Your task to perform on an android device: turn notification dots off Image 0: 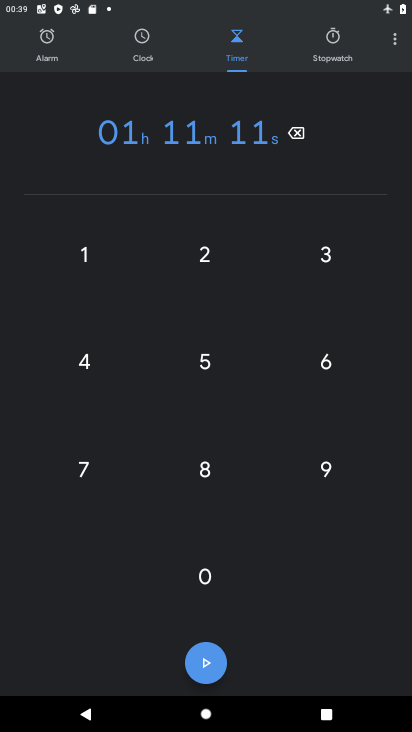
Step 0: press home button
Your task to perform on an android device: turn notification dots off Image 1: 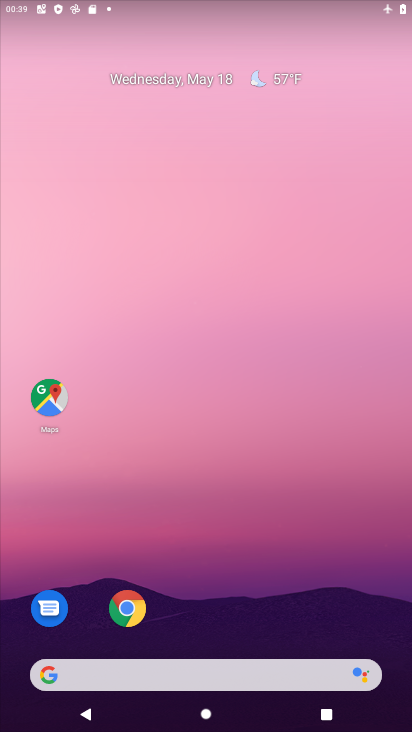
Step 1: drag from (223, 532) to (116, 18)
Your task to perform on an android device: turn notification dots off Image 2: 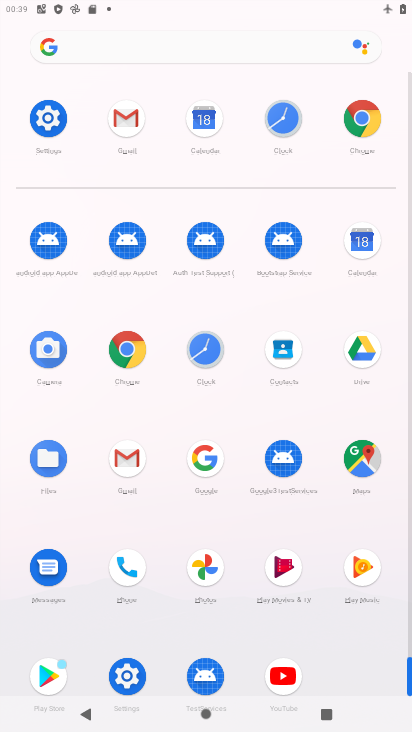
Step 2: click (45, 130)
Your task to perform on an android device: turn notification dots off Image 3: 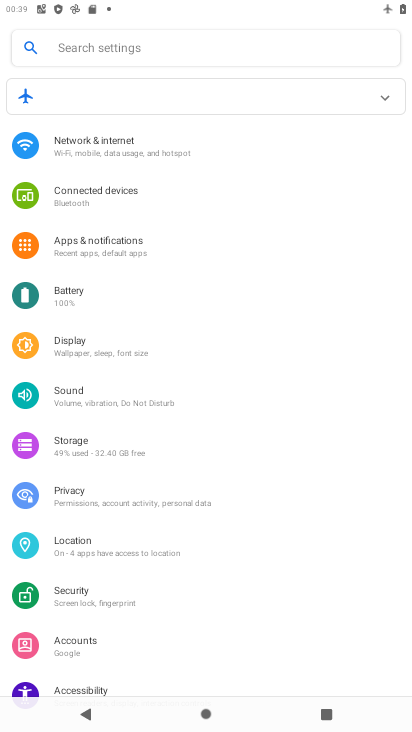
Step 3: click (100, 231)
Your task to perform on an android device: turn notification dots off Image 4: 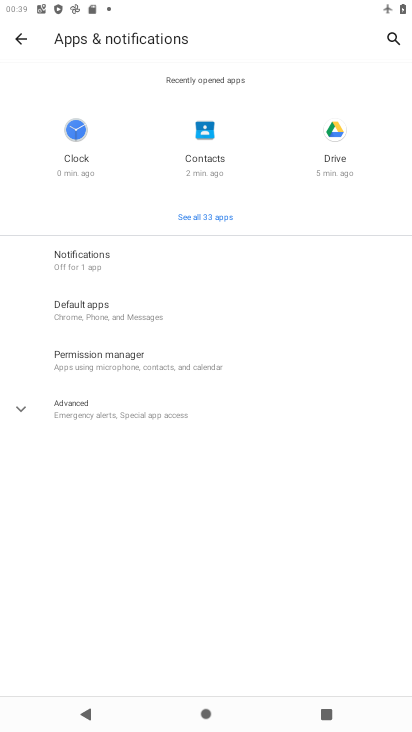
Step 4: click (76, 253)
Your task to perform on an android device: turn notification dots off Image 5: 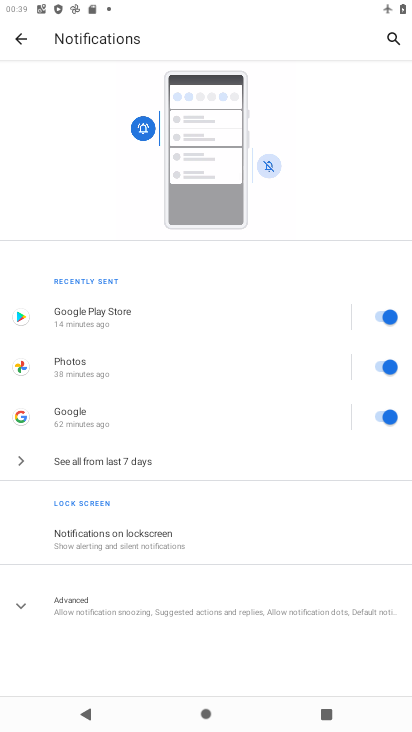
Step 5: click (54, 598)
Your task to perform on an android device: turn notification dots off Image 6: 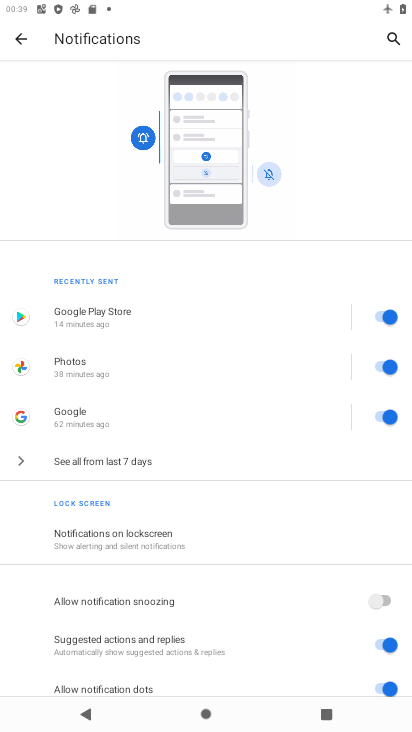
Step 6: drag from (257, 572) to (221, 247)
Your task to perform on an android device: turn notification dots off Image 7: 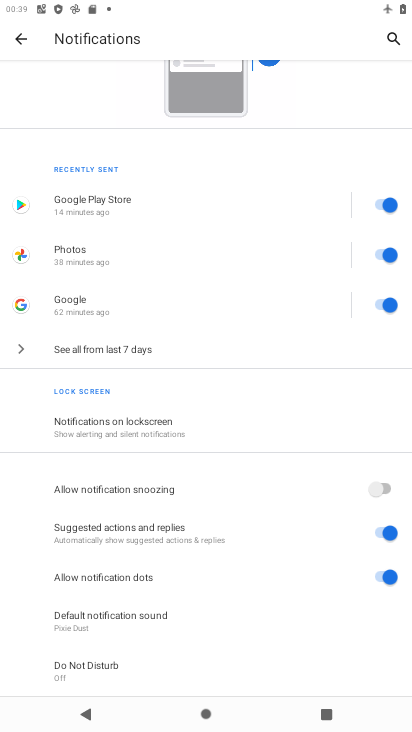
Step 7: click (386, 577)
Your task to perform on an android device: turn notification dots off Image 8: 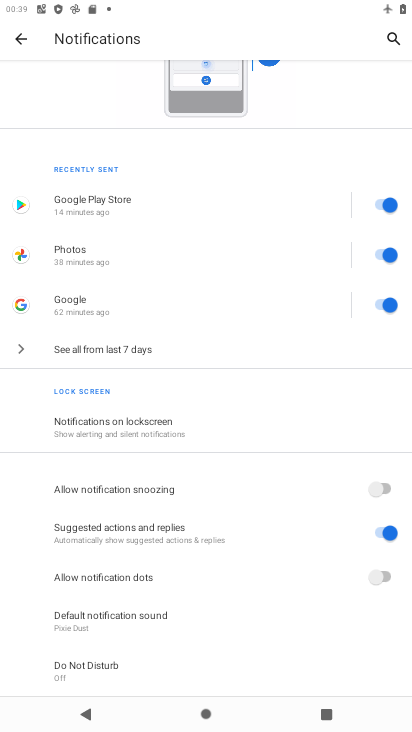
Step 8: task complete